Your task to perform on an android device: toggle notification dots Image 0: 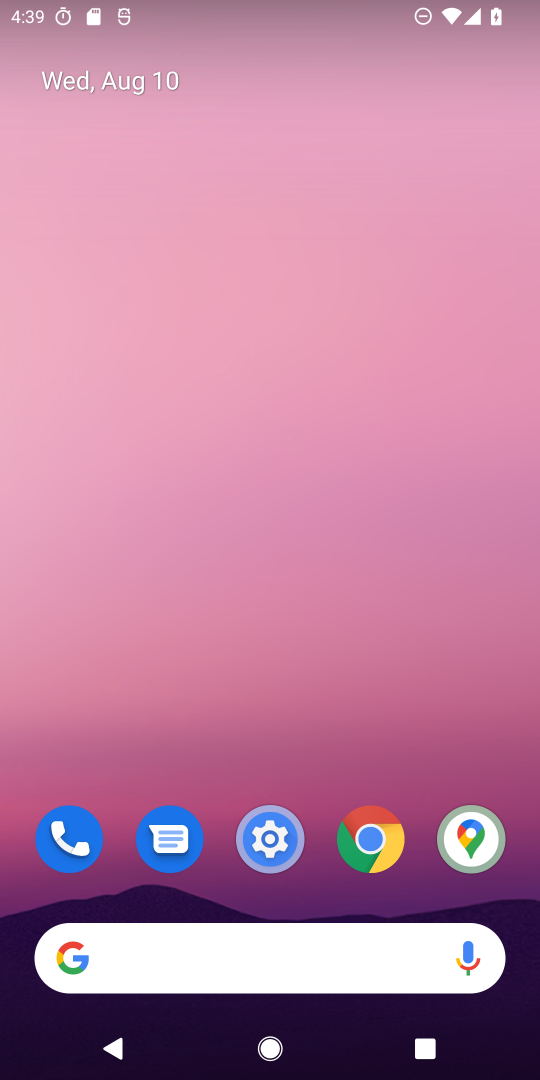
Step 0: click (254, 845)
Your task to perform on an android device: toggle notification dots Image 1: 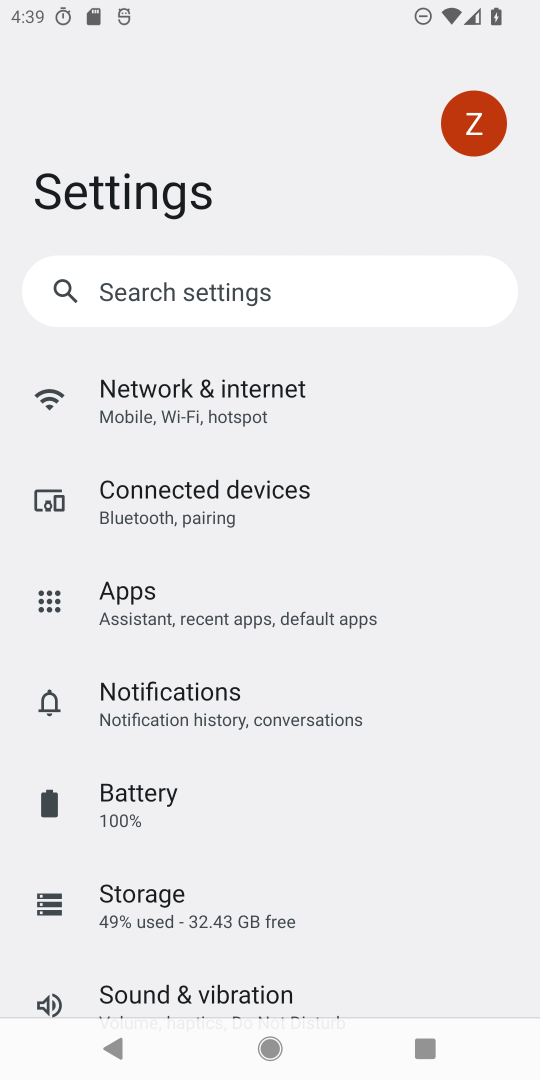
Step 1: drag from (445, 934) to (495, 254)
Your task to perform on an android device: toggle notification dots Image 2: 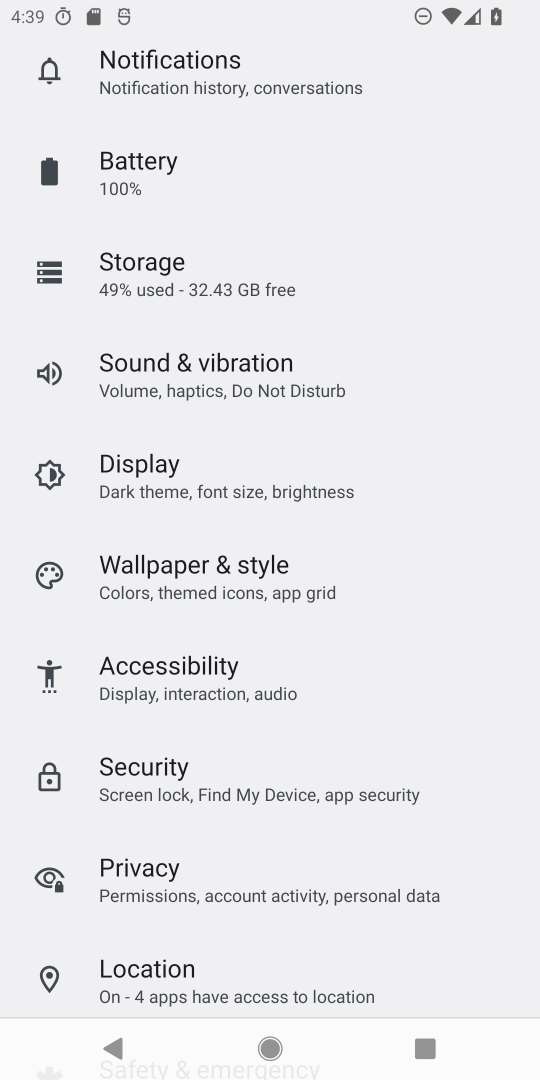
Step 2: click (192, 72)
Your task to perform on an android device: toggle notification dots Image 3: 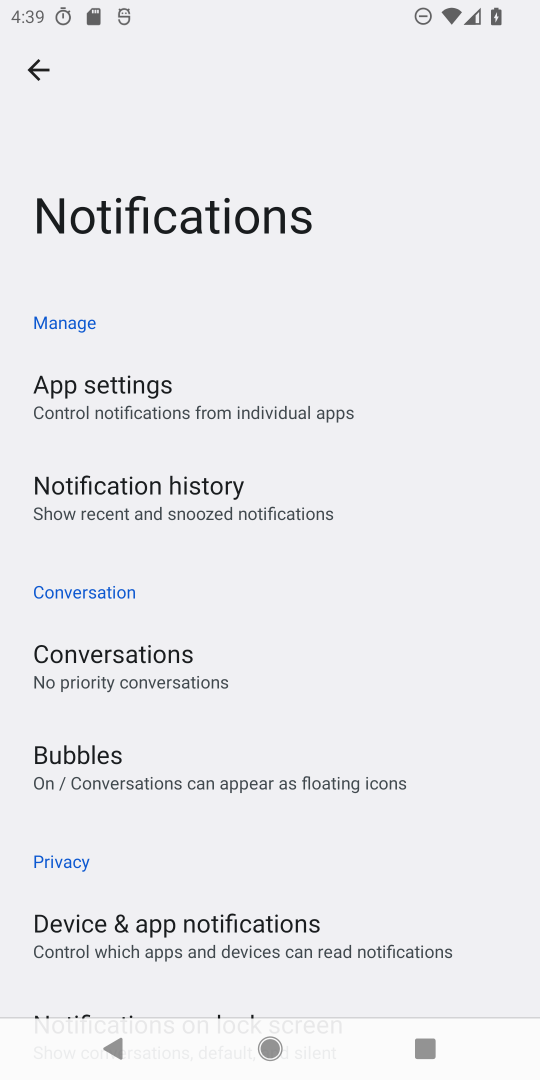
Step 3: task complete